Your task to perform on an android device: set the stopwatch Image 0: 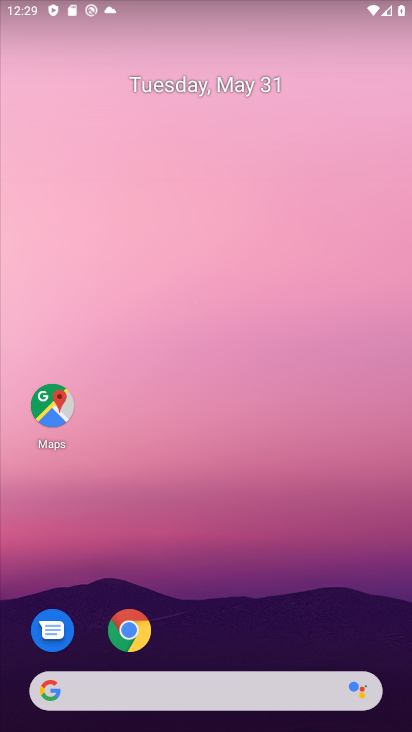
Step 0: drag from (222, 415) to (252, 179)
Your task to perform on an android device: set the stopwatch Image 1: 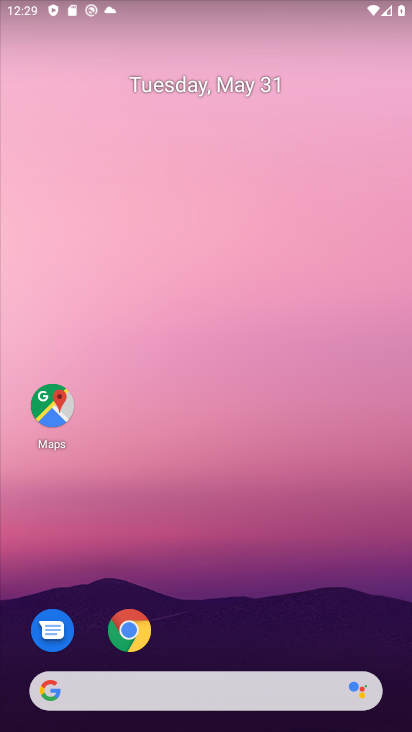
Step 1: drag from (252, 631) to (274, 194)
Your task to perform on an android device: set the stopwatch Image 2: 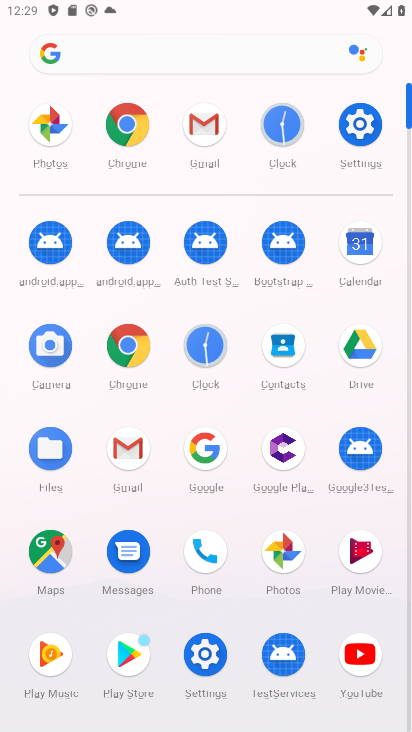
Step 2: click (202, 348)
Your task to perform on an android device: set the stopwatch Image 3: 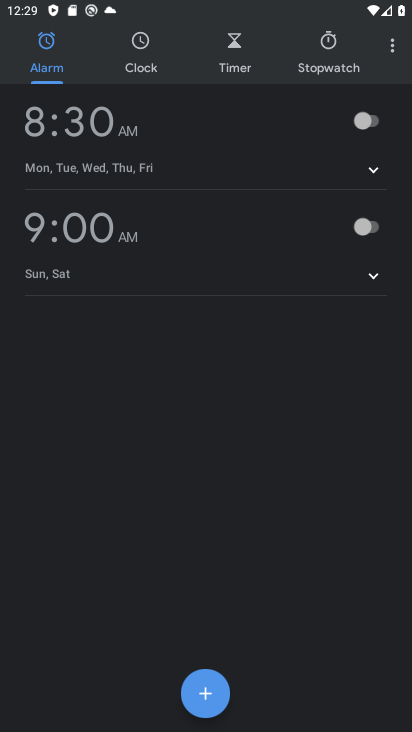
Step 3: click (325, 65)
Your task to perform on an android device: set the stopwatch Image 4: 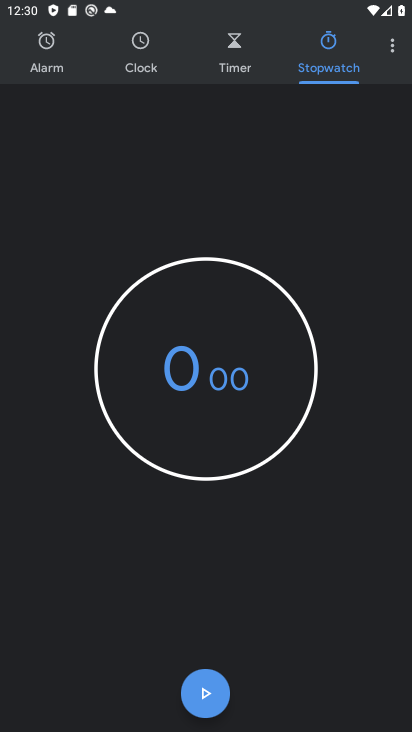
Step 4: click (217, 374)
Your task to perform on an android device: set the stopwatch Image 5: 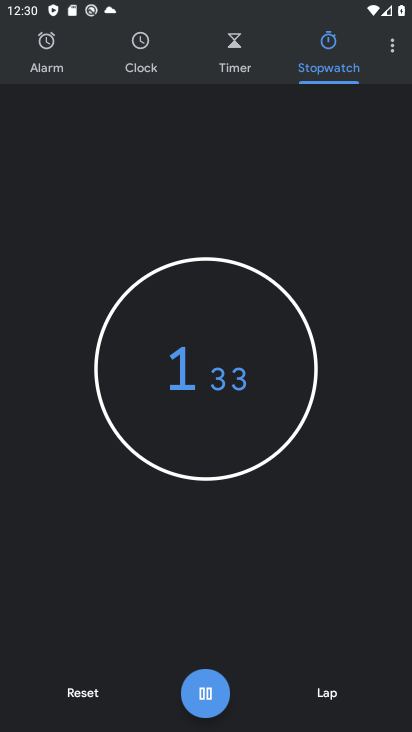
Step 5: click (217, 373)
Your task to perform on an android device: set the stopwatch Image 6: 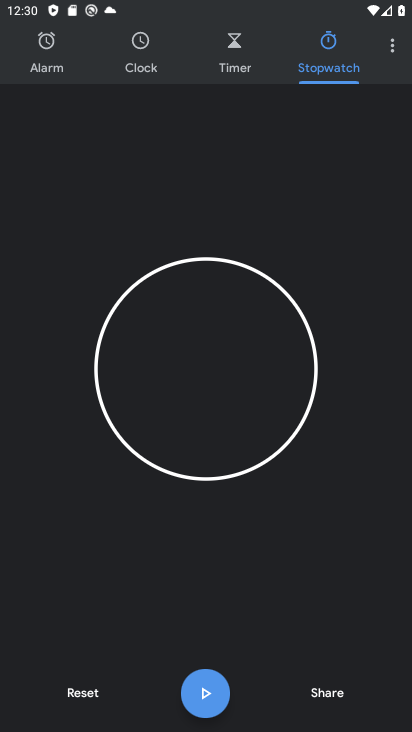
Step 6: task complete